Your task to perform on an android device: Open the stopwatch Image 0: 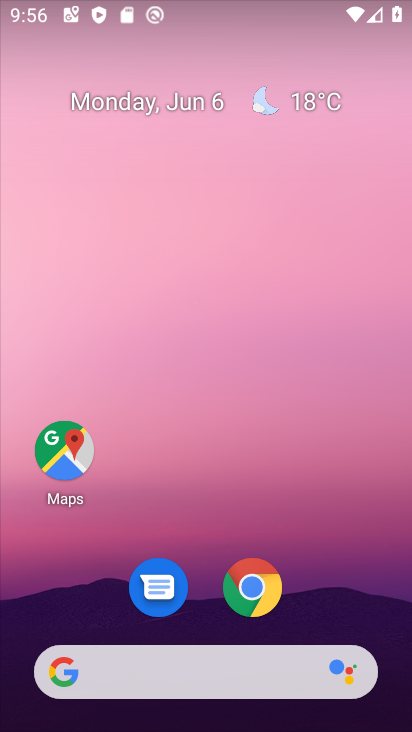
Step 0: drag from (341, 567) to (268, 106)
Your task to perform on an android device: Open the stopwatch Image 1: 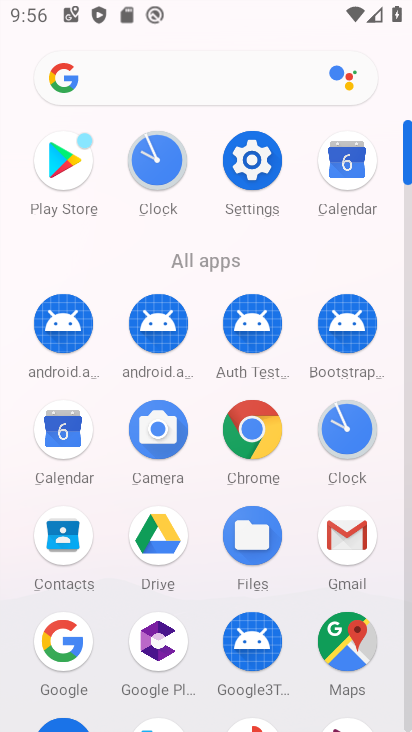
Step 1: click (156, 157)
Your task to perform on an android device: Open the stopwatch Image 2: 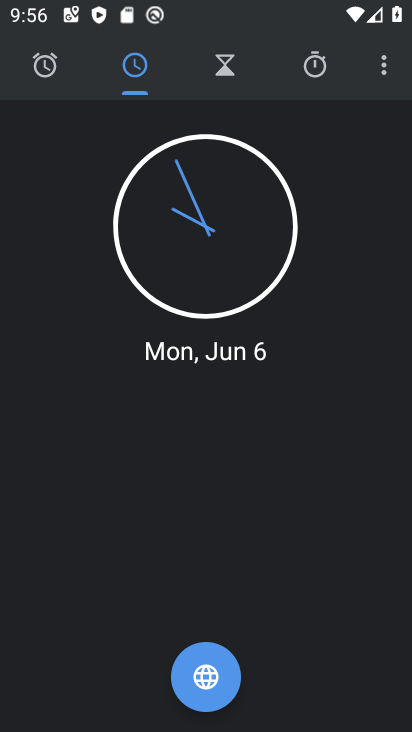
Step 2: click (217, 62)
Your task to perform on an android device: Open the stopwatch Image 3: 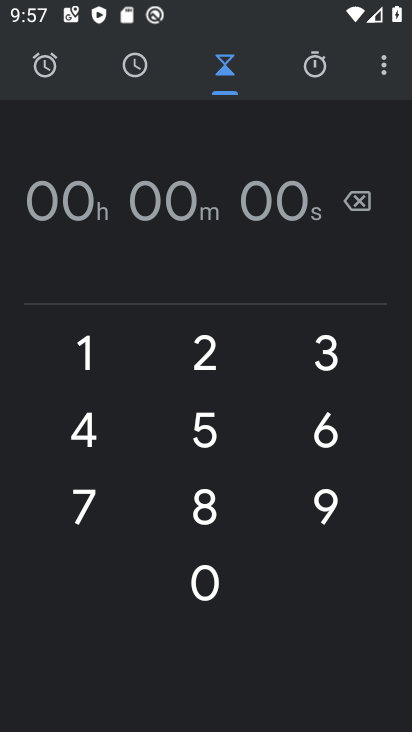
Step 3: task complete